Your task to perform on an android device: toggle show notifications on the lock screen Image 0: 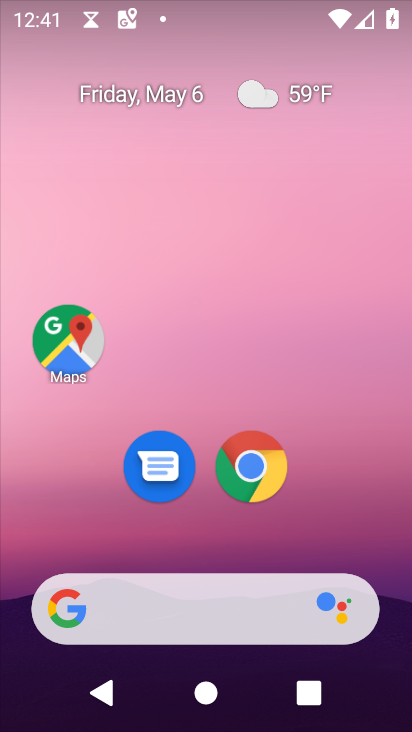
Step 0: drag from (389, 577) to (270, 22)
Your task to perform on an android device: toggle show notifications on the lock screen Image 1: 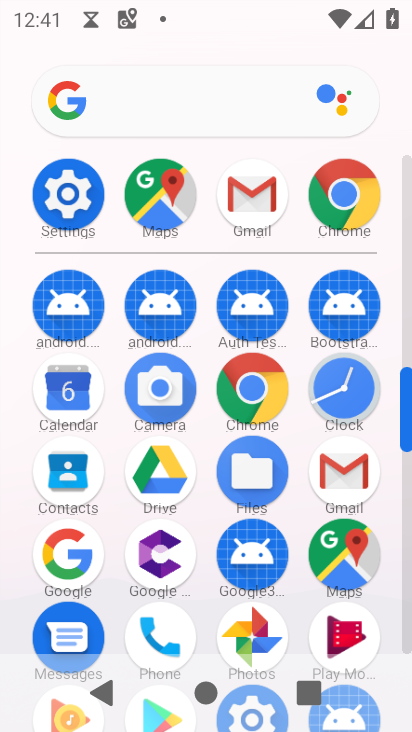
Step 1: click (86, 209)
Your task to perform on an android device: toggle show notifications on the lock screen Image 2: 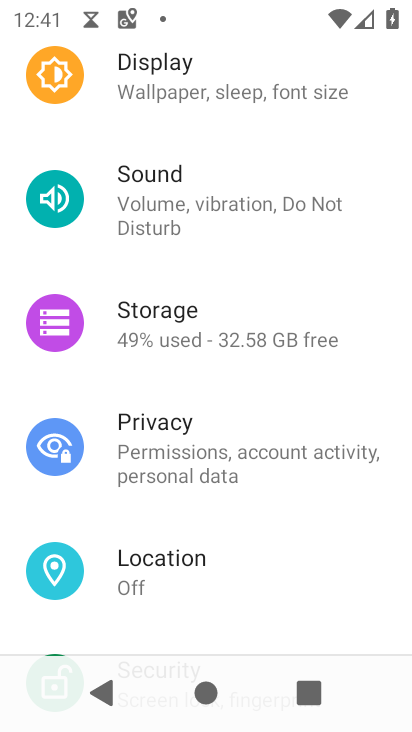
Step 2: drag from (277, 175) to (209, 664)
Your task to perform on an android device: toggle show notifications on the lock screen Image 3: 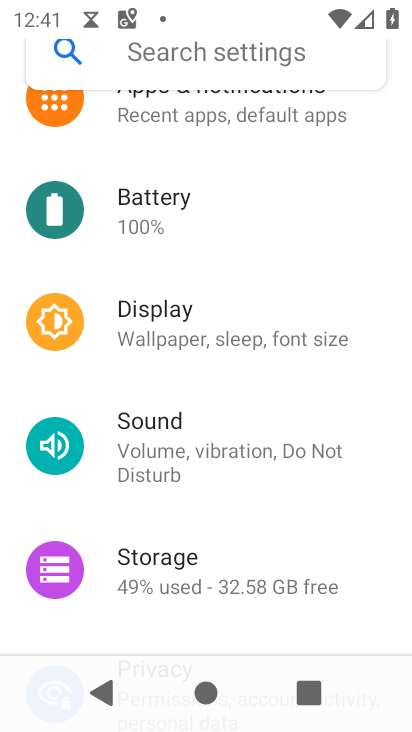
Step 3: drag from (194, 268) to (127, 705)
Your task to perform on an android device: toggle show notifications on the lock screen Image 4: 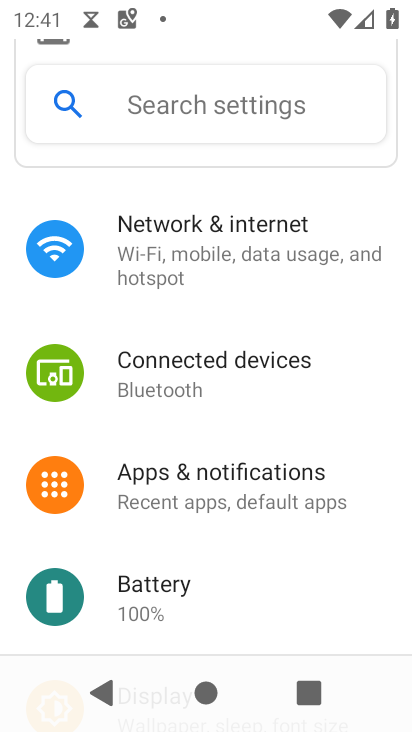
Step 4: click (186, 505)
Your task to perform on an android device: toggle show notifications on the lock screen Image 5: 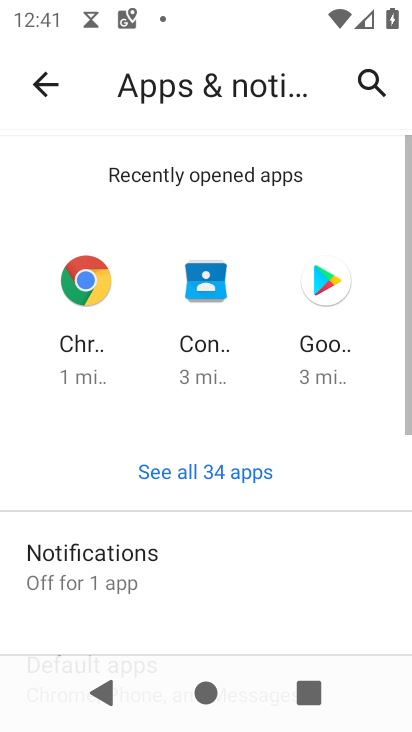
Step 5: drag from (234, 584) to (231, 131)
Your task to perform on an android device: toggle show notifications on the lock screen Image 6: 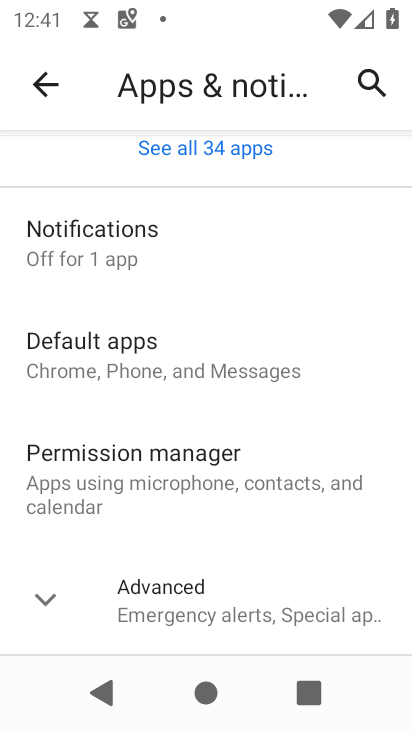
Step 6: click (200, 233)
Your task to perform on an android device: toggle show notifications on the lock screen Image 7: 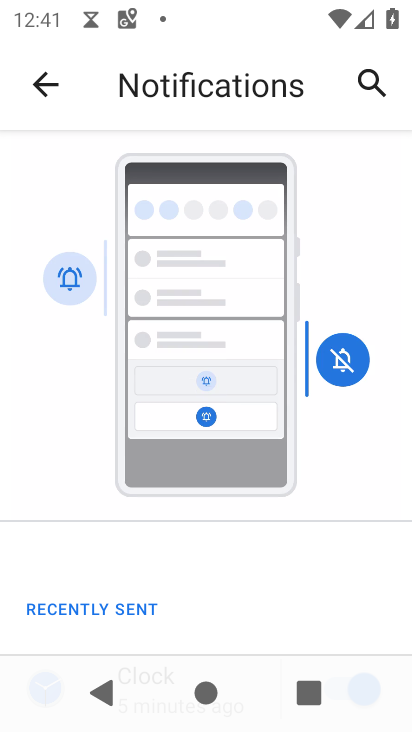
Step 7: drag from (258, 574) to (232, 153)
Your task to perform on an android device: toggle show notifications on the lock screen Image 8: 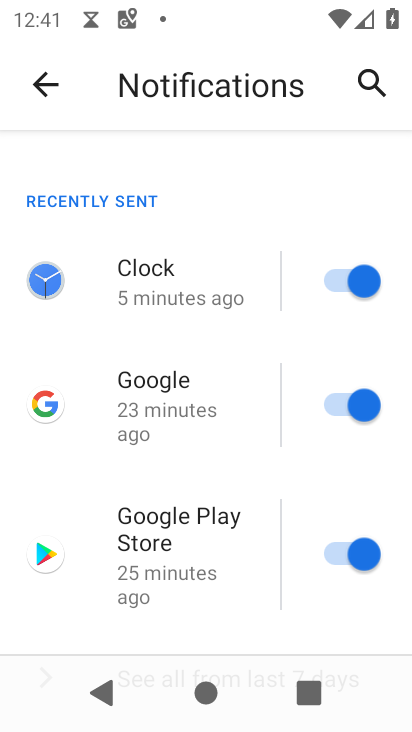
Step 8: drag from (247, 637) to (256, 164)
Your task to perform on an android device: toggle show notifications on the lock screen Image 9: 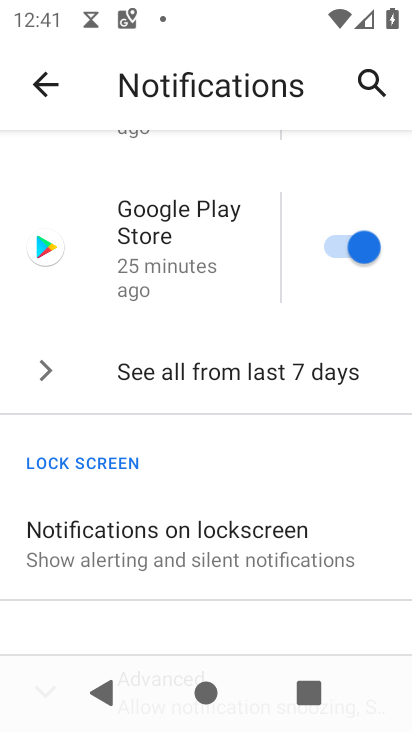
Step 9: click (290, 528)
Your task to perform on an android device: toggle show notifications on the lock screen Image 10: 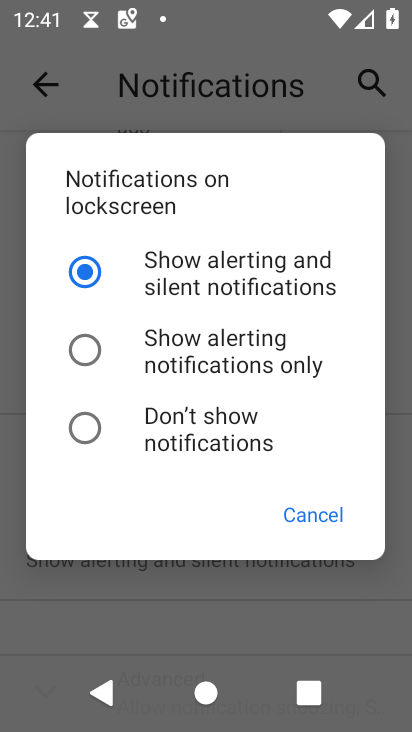
Step 10: click (264, 375)
Your task to perform on an android device: toggle show notifications on the lock screen Image 11: 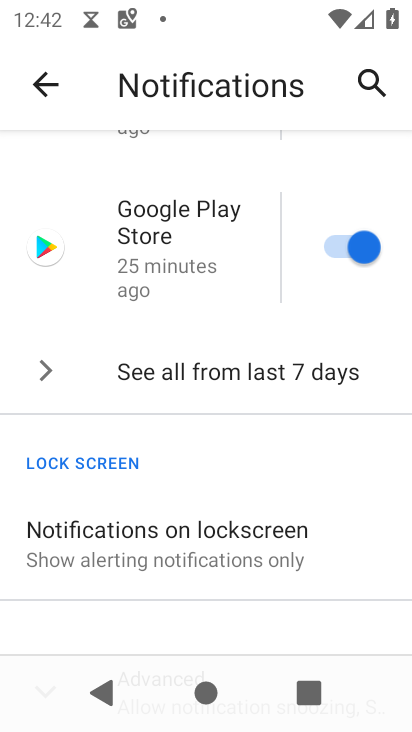
Step 11: task complete